Your task to perform on an android device: What's the weather today? Image 0: 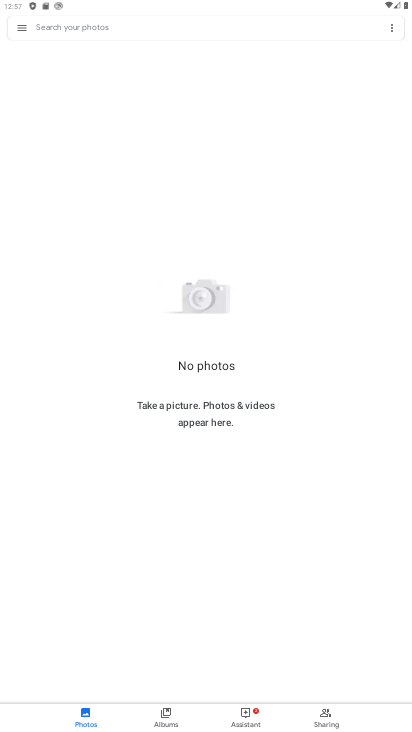
Step 0: press home button
Your task to perform on an android device: What's the weather today? Image 1: 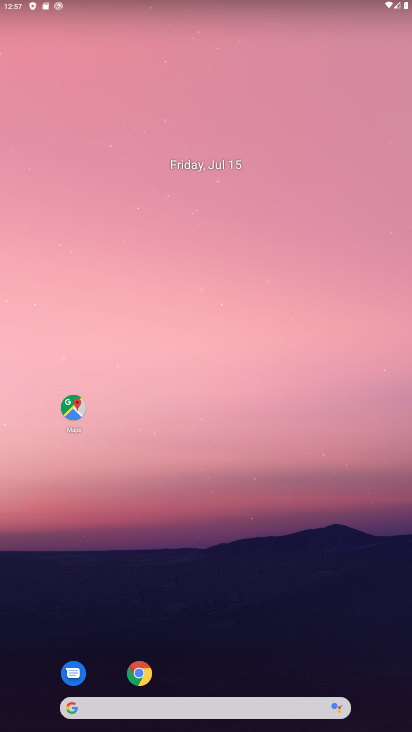
Step 1: drag from (297, 649) to (254, 56)
Your task to perform on an android device: What's the weather today? Image 2: 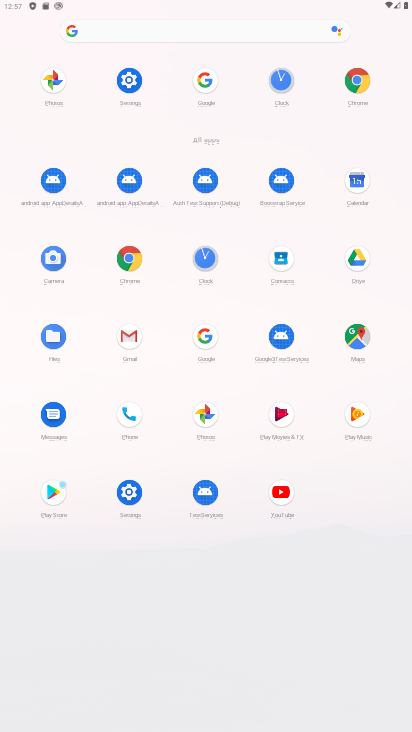
Step 2: click (203, 338)
Your task to perform on an android device: What's the weather today? Image 3: 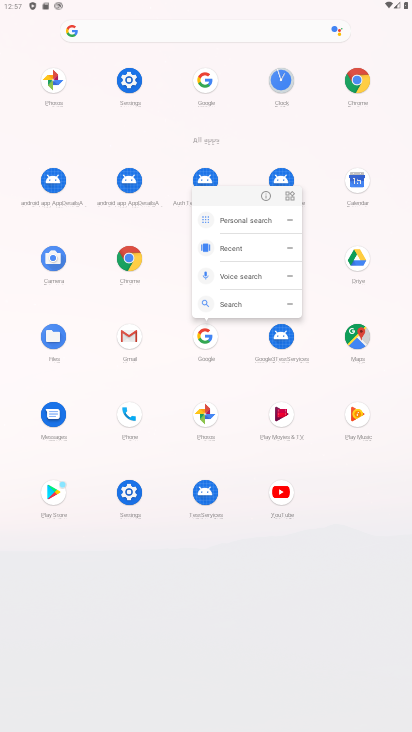
Step 3: click (203, 338)
Your task to perform on an android device: What's the weather today? Image 4: 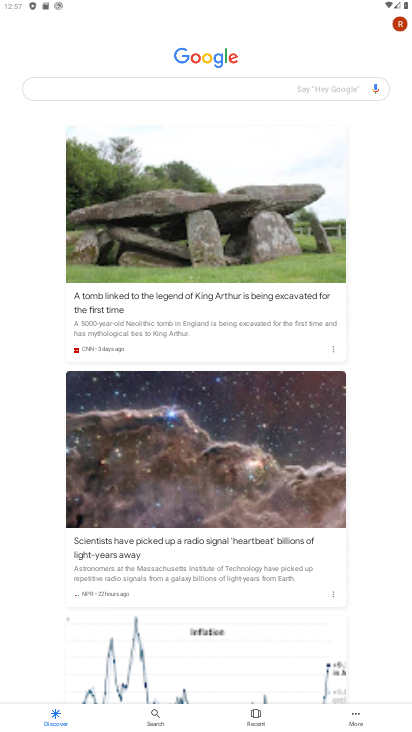
Step 4: drag from (353, 186) to (315, 536)
Your task to perform on an android device: What's the weather today? Image 5: 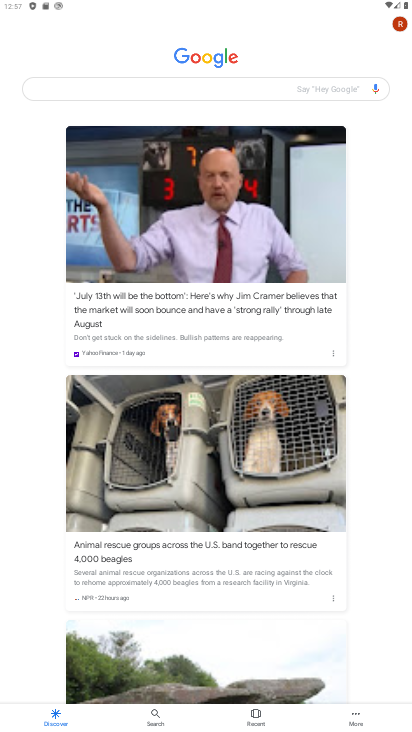
Step 5: click (162, 89)
Your task to perform on an android device: What's the weather today? Image 6: 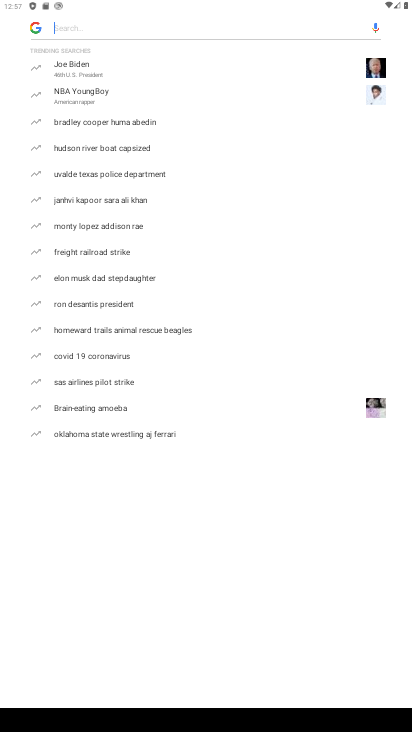
Step 6: type "wether"
Your task to perform on an android device: What's the weather today? Image 7: 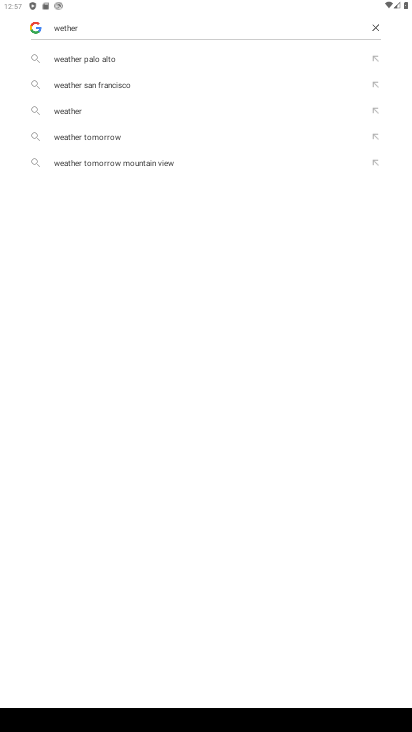
Step 7: click (65, 114)
Your task to perform on an android device: What's the weather today? Image 8: 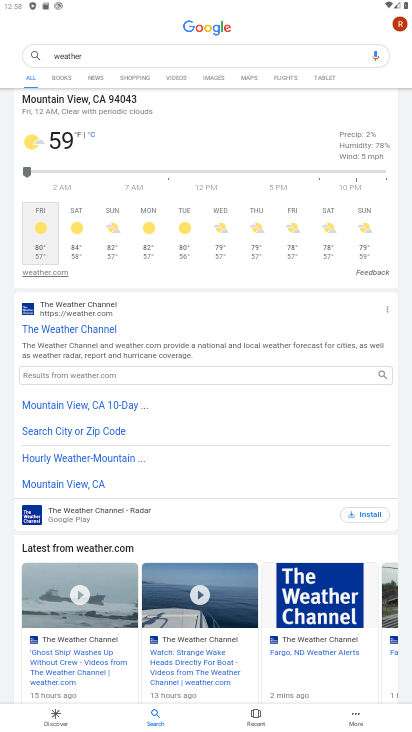
Step 8: task complete